Your task to perform on an android device: Open my contact list Image 0: 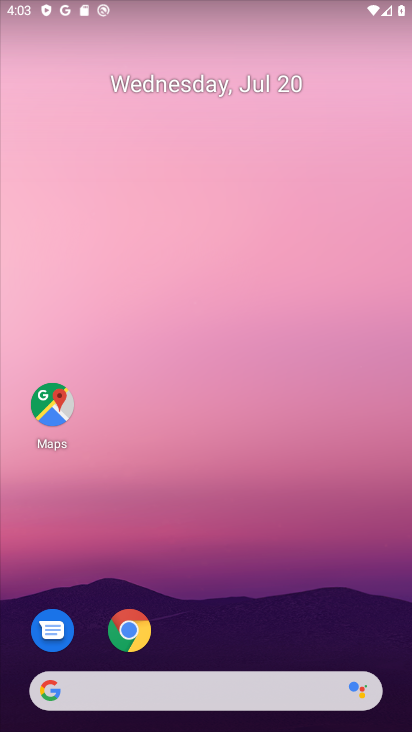
Step 0: drag from (233, 671) to (322, 24)
Your task to perform on an android device: Open my contact list Image 1: 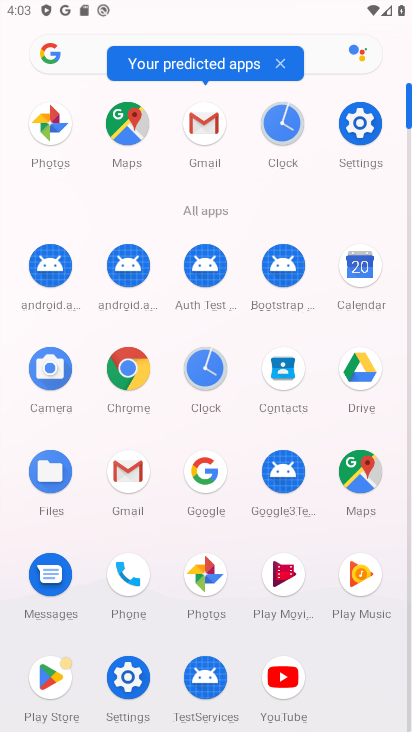
Step 1: click (279, 370)
Your task to perform on an android device: Open my contact list Image 2: 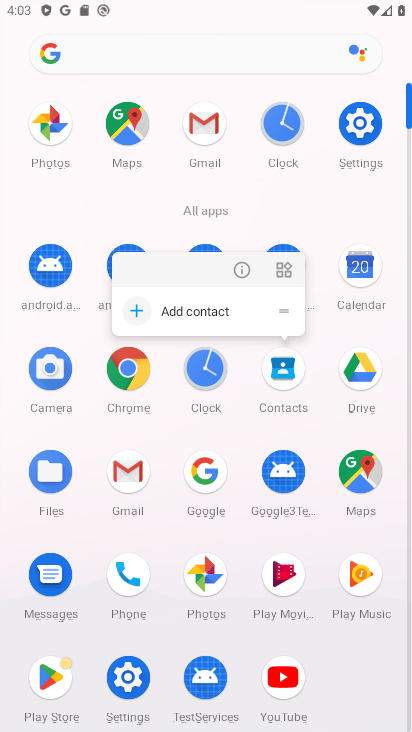
Step 2: click (261, 373)
Your task to perform on an android device: Open my contact list Image 3: 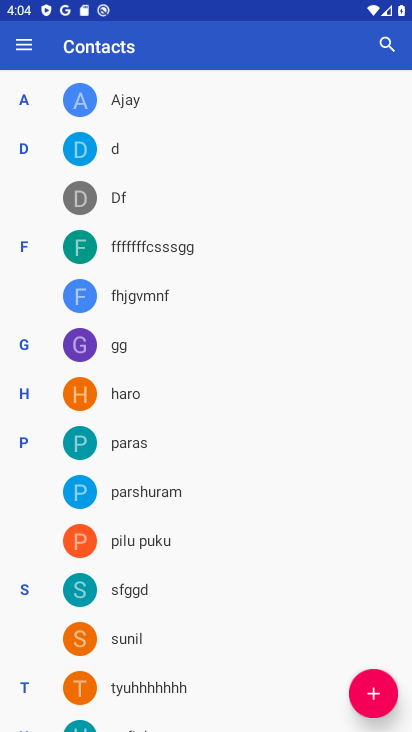
Step 3: task complete